Your task to perform on an android device: What's the weather going to be tomorrow? Image 0: 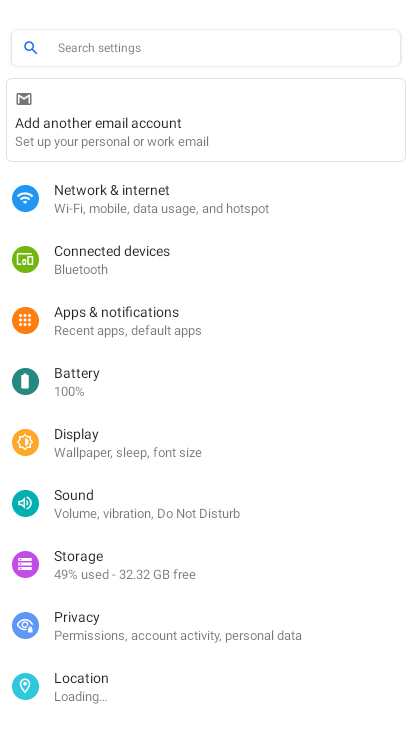
Step 0: press home button
Your task to perform on an android device: What's the weather going to be tomorrow? Image 1: 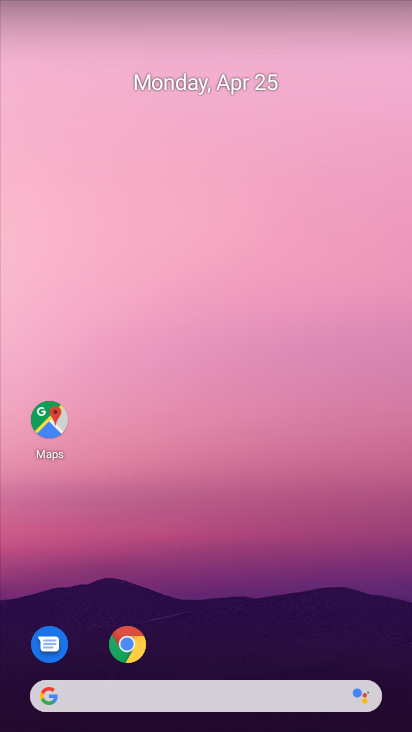
Step 1: drag from (227, 643) to (250, 128)
Your task to perform on an android device: What's the weather going to be tomorrow? Image 2: 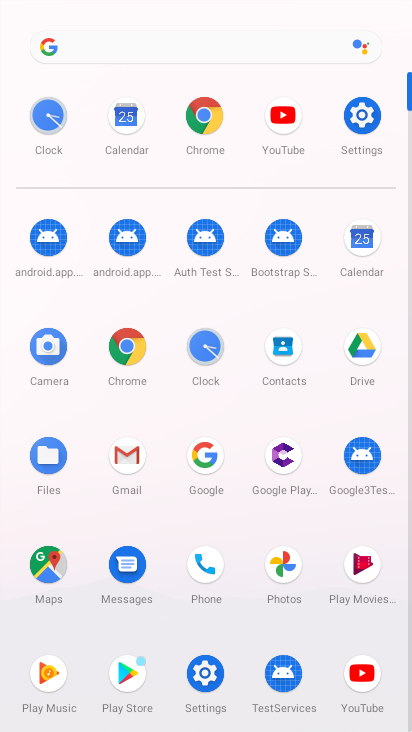
Step 2: click (203, 129)
Your task to perform on an android device: What's the weather going to be tomorrow? Image 3: 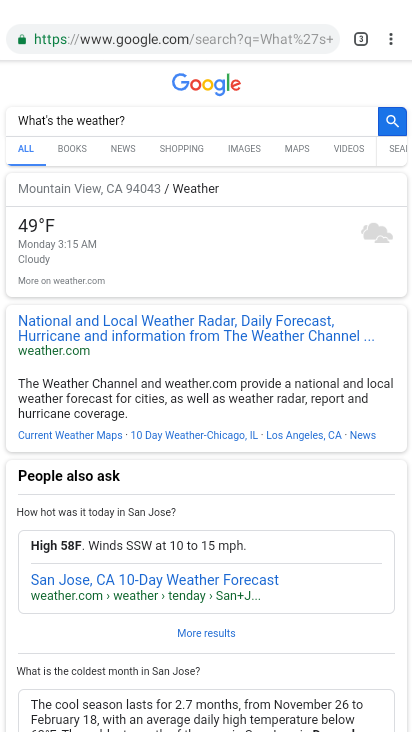
Step 3: click (232, 121)
Your task to perform on an android device: What's the weather going to be tomorrow? Image 4: 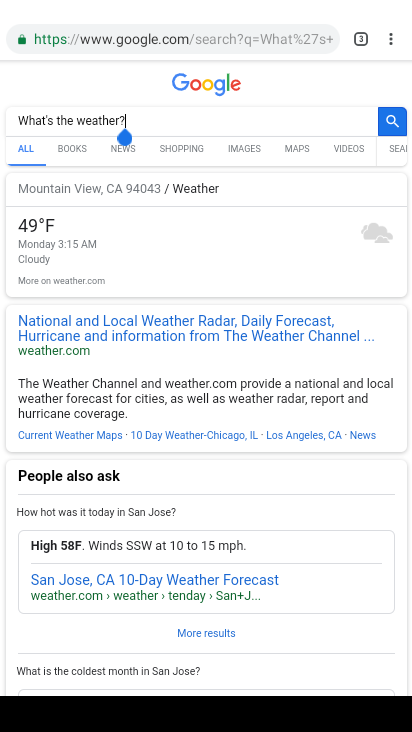
Step 4: click (229, 40)
Your task to perform on an android device: What's the weather going to be tomorrow? Image 5: 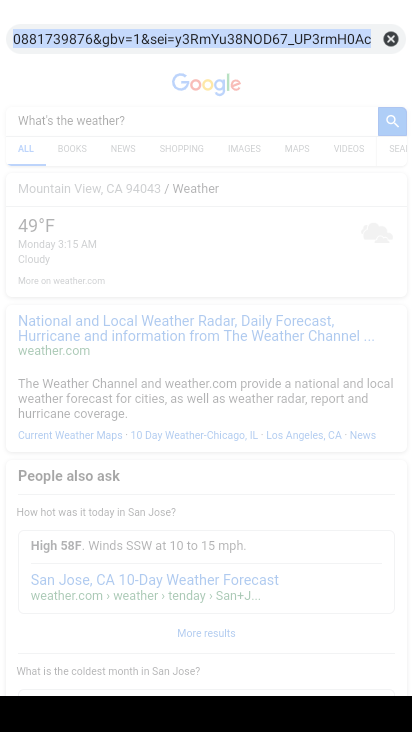
Step 5: type "What's the weather going to be tomorrow?"
Your task to perform on an android device: What's the weather going to be tomorrow? Image 6: 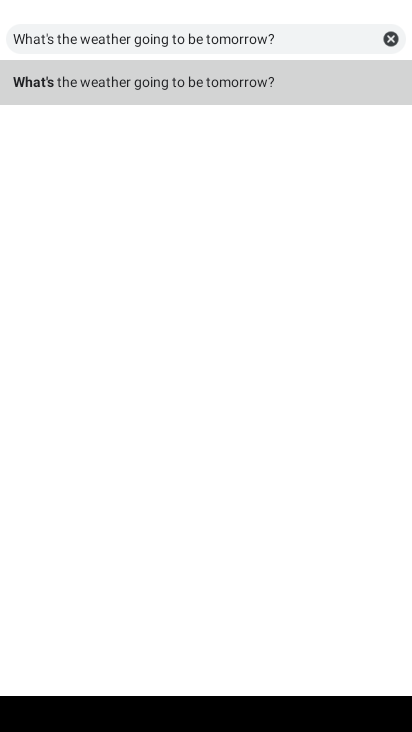
Step 6: press enter
Your task to perform on an android device: What's the weather going to be tomorrow? Image 7: 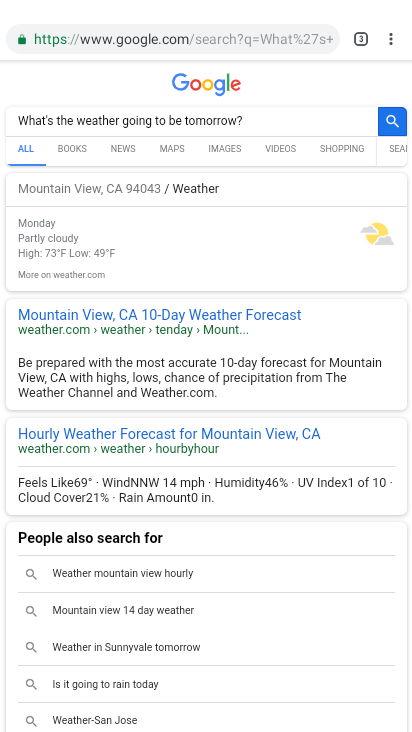
Step 7: click (222, 315)
Your task to perform on an android device: What's the weather going to be tomorrow? Image 8: 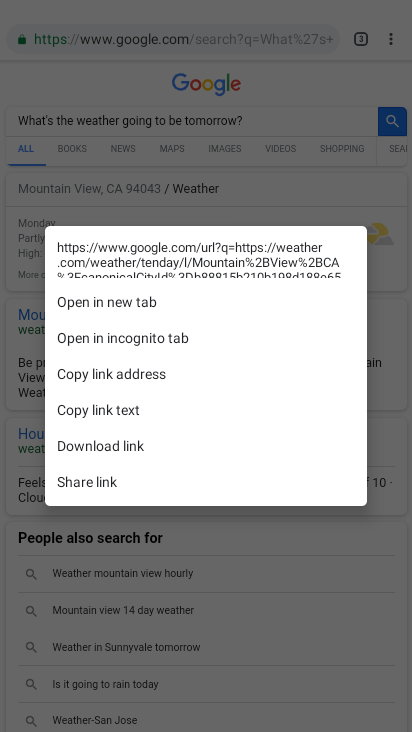
Step 8: click (396, 527)
Your task to perform on an android device: What's the weather going to be tomorrow? Image 9: 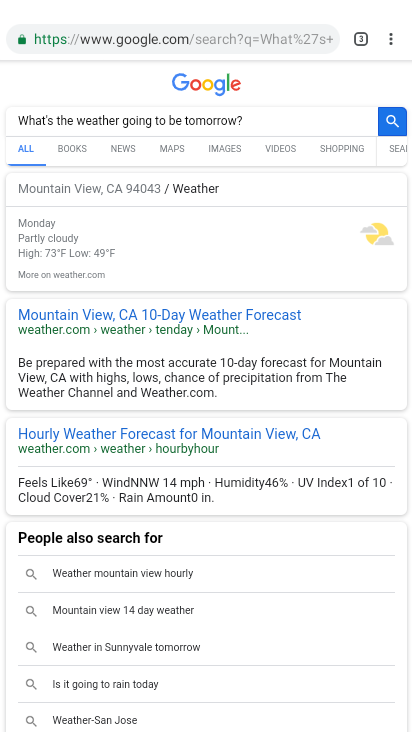
Step 9: click (226, 313)
Your task to perform on an android device: What's the weather going to be tomorrow? Image 10: 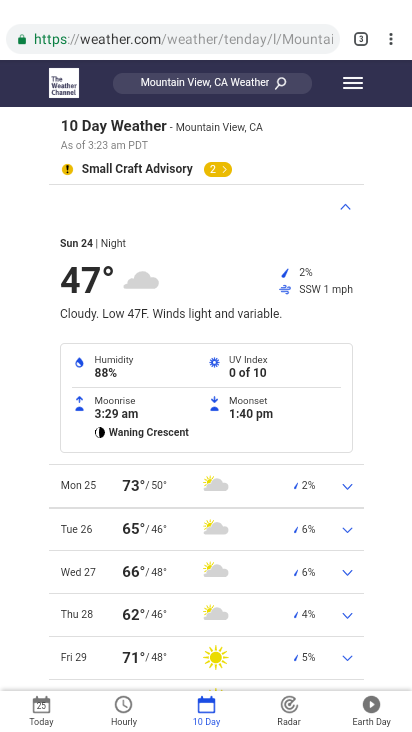
Step 10: task complete